Your task to perform on an android device: choose inbox layout in the gmail app Image 0: 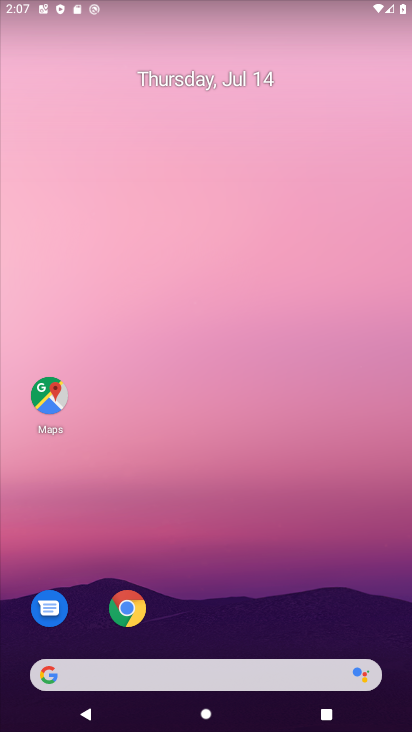
Step 0: drag from (244, 651) to (279, 398)
Your task to perform on an android device: choose inbox layout in the gmail app Image 1: 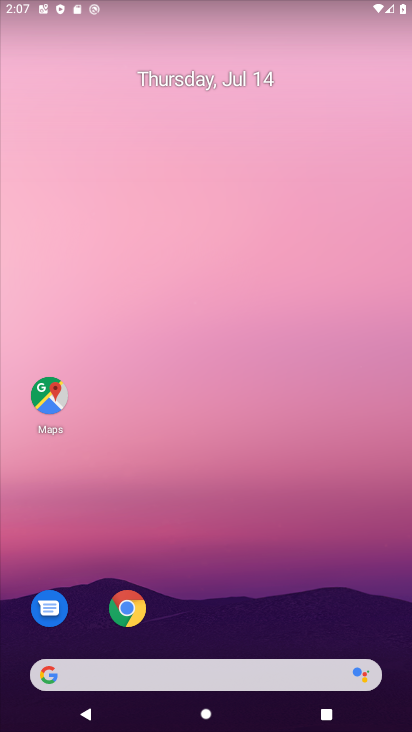
Step 1: drag from (265, 642) to (236, 131)
Your task to perform on an android device: choose inbox layout in the gmail app Image 2: 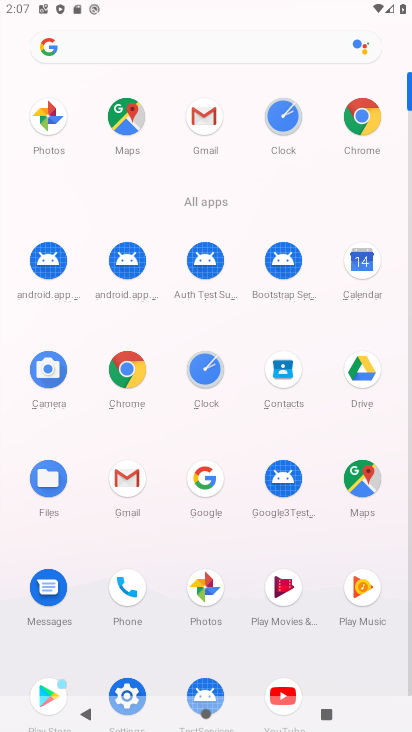
Step 2: click (128, 477)
Your task to perform on an android device: choose inbox layout in the gmail app Image 3: 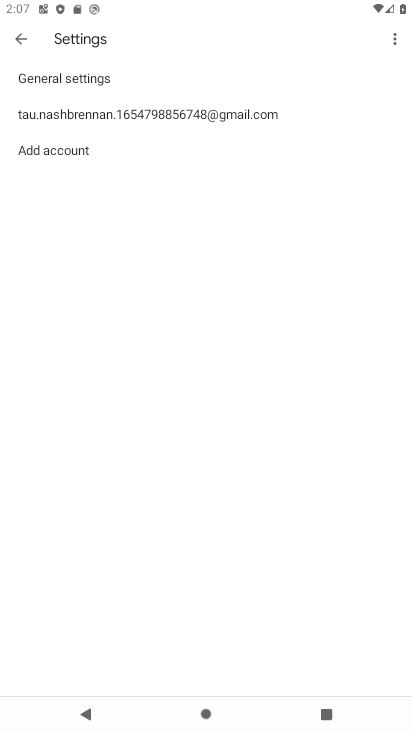
Step 3: click (63, 117)
Your task to perform on an android device: choose inbox layout in the gmail app Image 4: 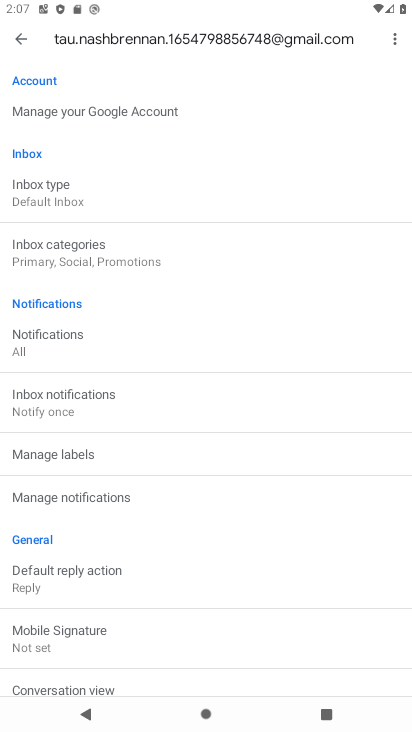
Step 4: click (60, 193)
Your task to perform on an android device: choose inbox layout in the gmail app Image 5: 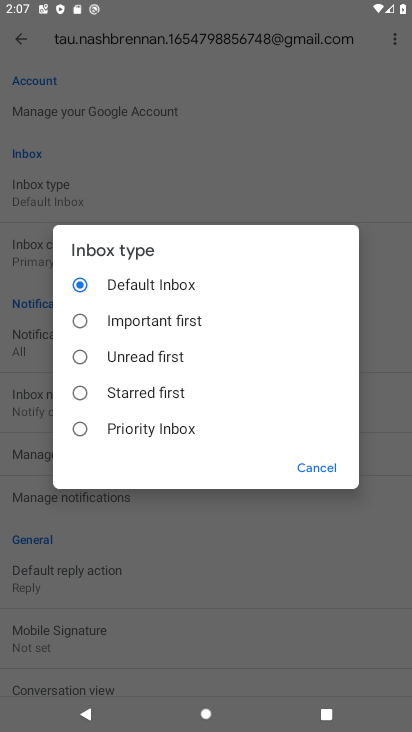
Step 5: click (169, 431)
Your task to perform on an android device: choose inbox layout in the gmail app Image 6: 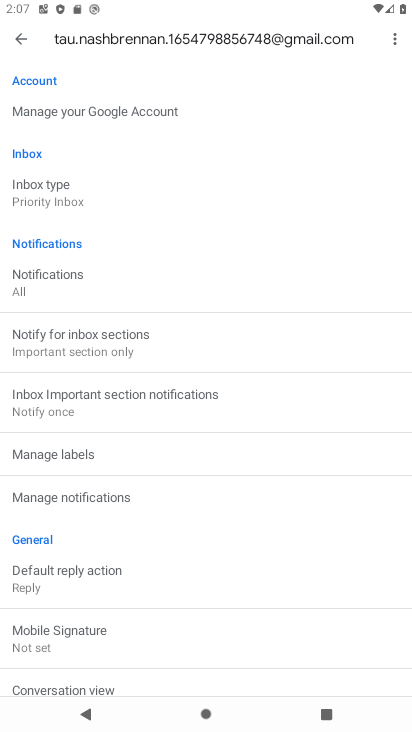
Step 6: task complete